Your task to perform on an android device: Go to location settings Image 0: 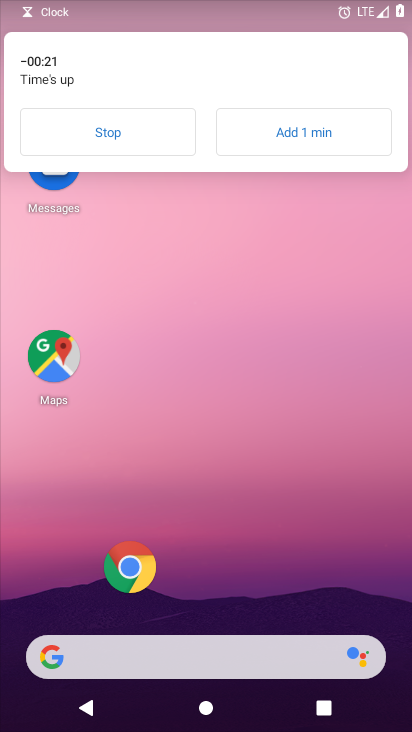
Step 0: drag from (214, 405) to (234, 156)
Your task to perform on an android device: Go to location settings Image 1: 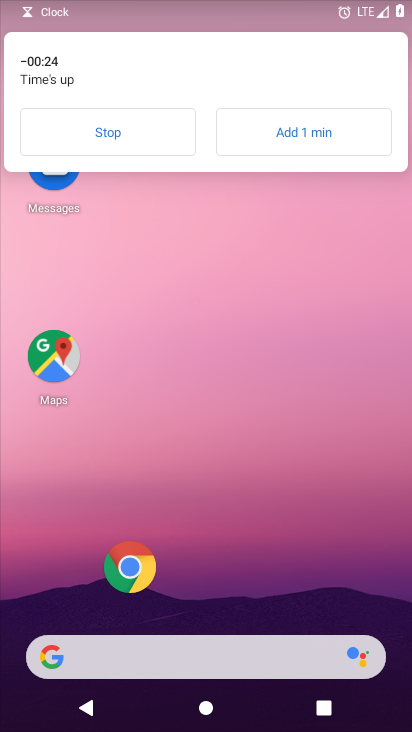
Step 1: drag from (240, 321) to (267, 24)
Your task to perform on an android device: Go to location settings Image 2: 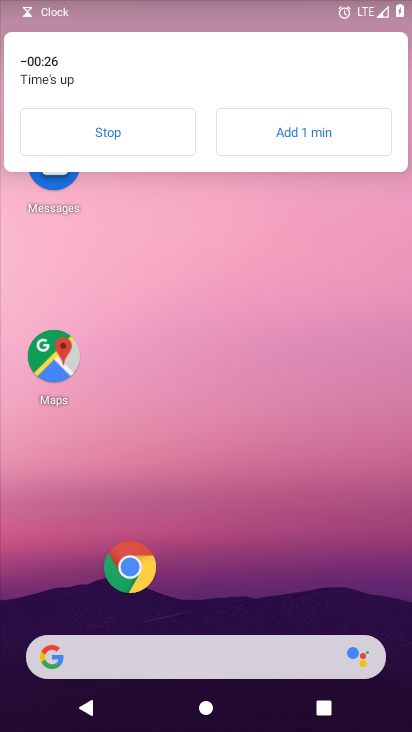
Step 2: drag from (226, 479) to (232, 120)
Your task to perform on an android device: Go to location settings Image 3: 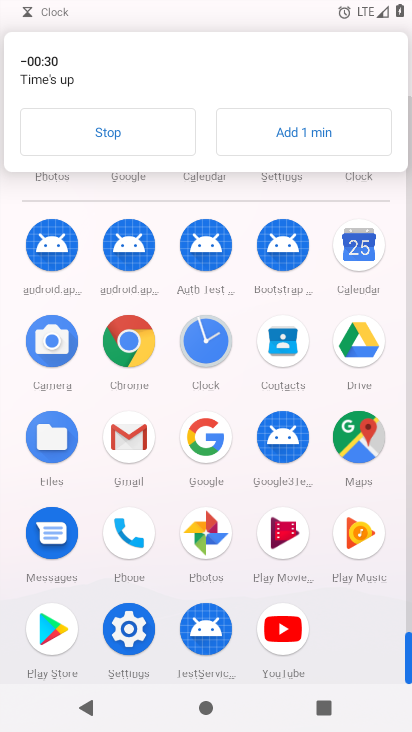
Step 3: click (124, 623)
Your task to perform on an android device: Go to location settings Image 4: 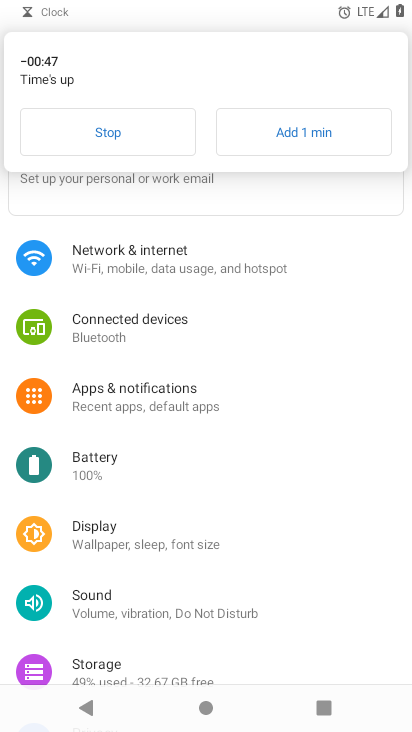
Step 4: drag from (159, 613) to (257, 301)
Your task to perform on an android device: Go to location settings Image 5: 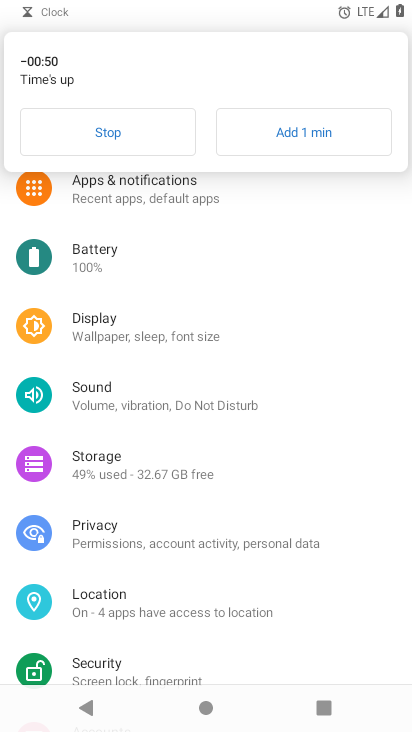
Step 5: click (183, 596)
Your task to perform on an android device: Go to location settings Image 6: 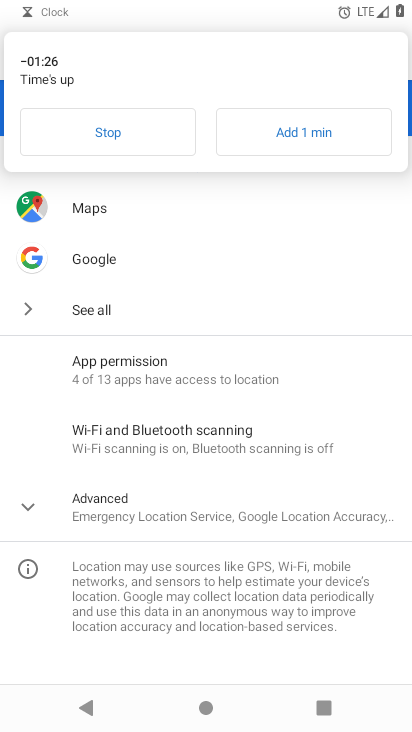
Step 6: task complete